Your task to perform on an android device: Open Yahoo.com Image 0: 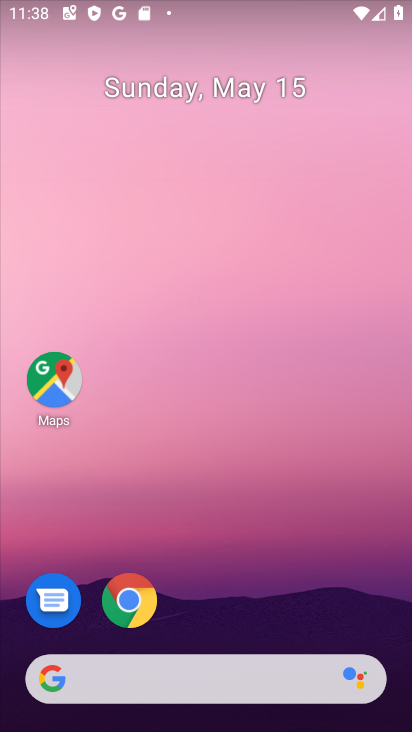
Step 0: click (148, 598)
Your task to perform on an android device: Open Yahoo.com Image 1: 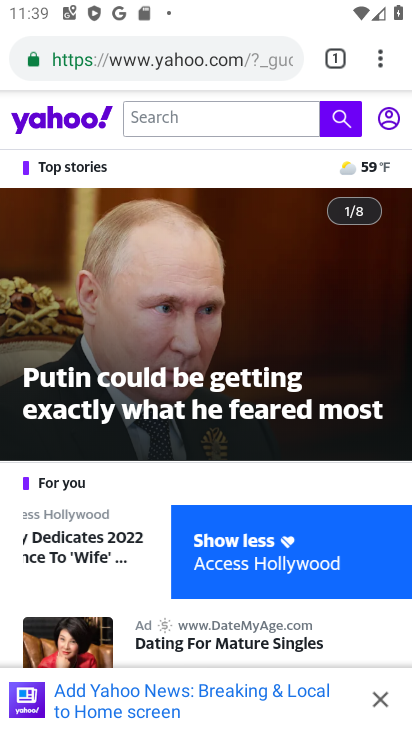
Step 1: click (215, 52)
Your task to perform on an android device: Open Yahoo.com Image 2: 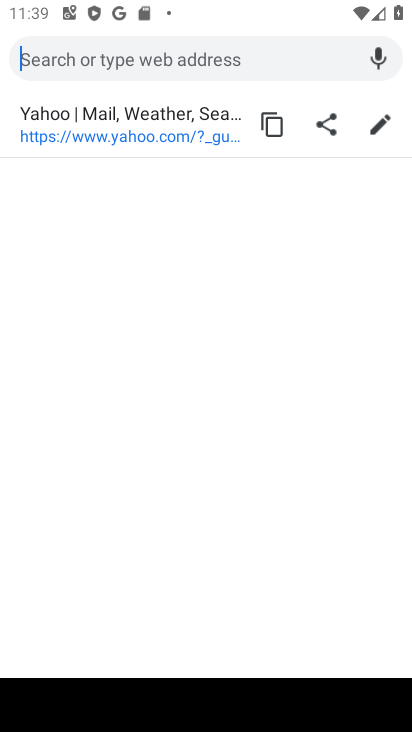
Step 2: click (151, 137)
Your task to perform on an android device: Open Yahoo.com Image 3: 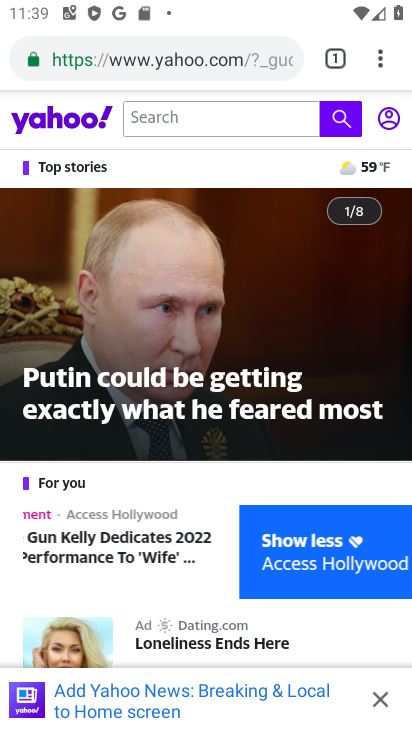
Step 3: task complete